Your task to perform on an android device: Clear the cart on bestbuy.com. Add logitech g933 to the cart on bestbuy.com, then select checkout. Image 0: 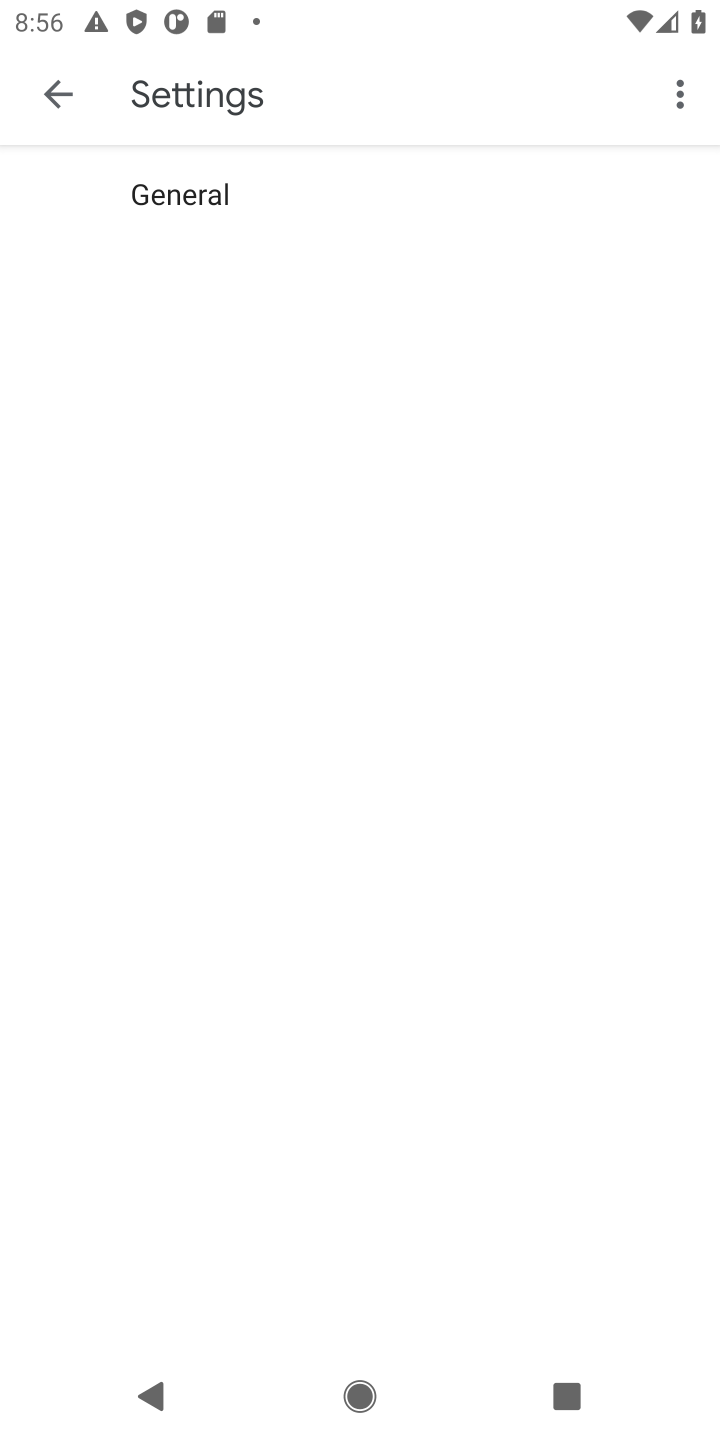
Step 0: press home button
Your task to perform on an android device: Clear the cart on bestbuy.com. Add logitech g933 to the cart on bestbuy.com, then select checkout. Image 1: 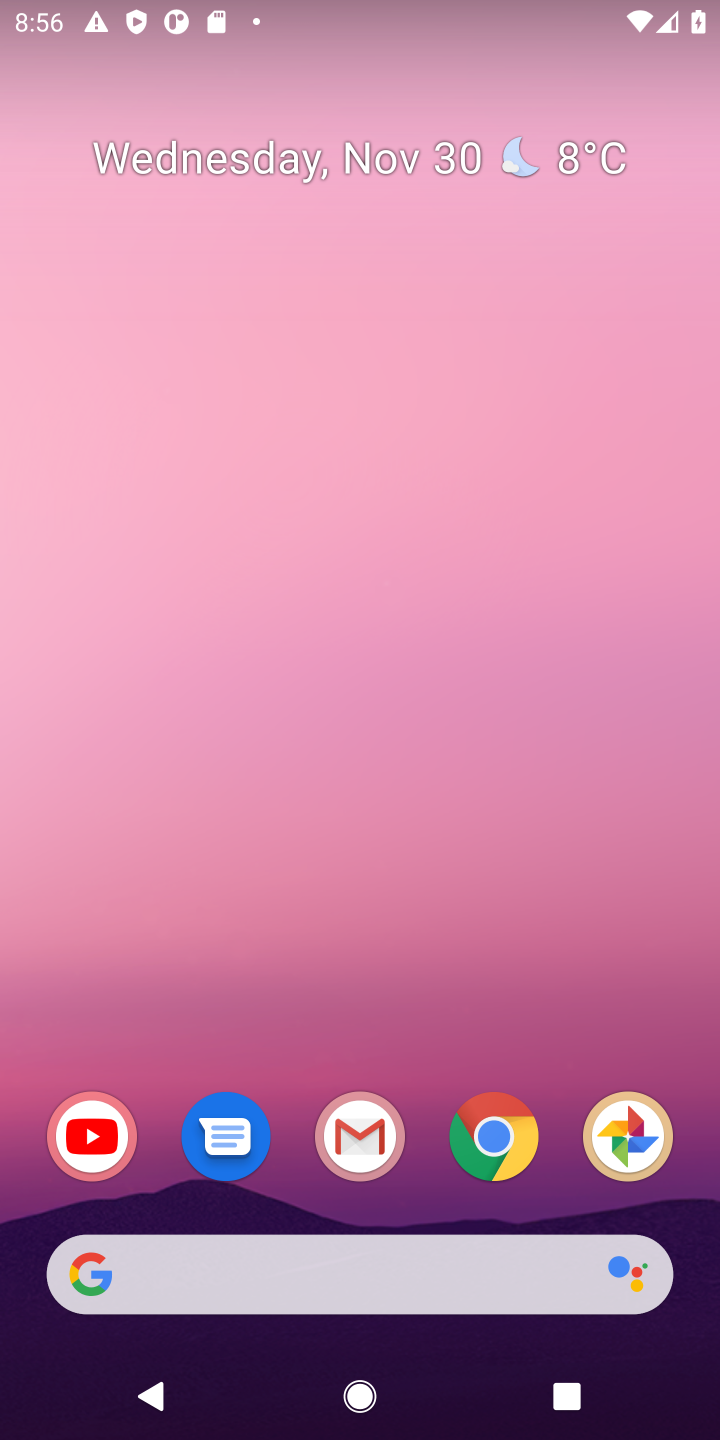
Step 1: click (493, 1139)
Your task to perform on an android device: Clear the cart on bestbuy.com. Add logitech g933 to the cart on bestbuy.com, then select checkout. Image 2: 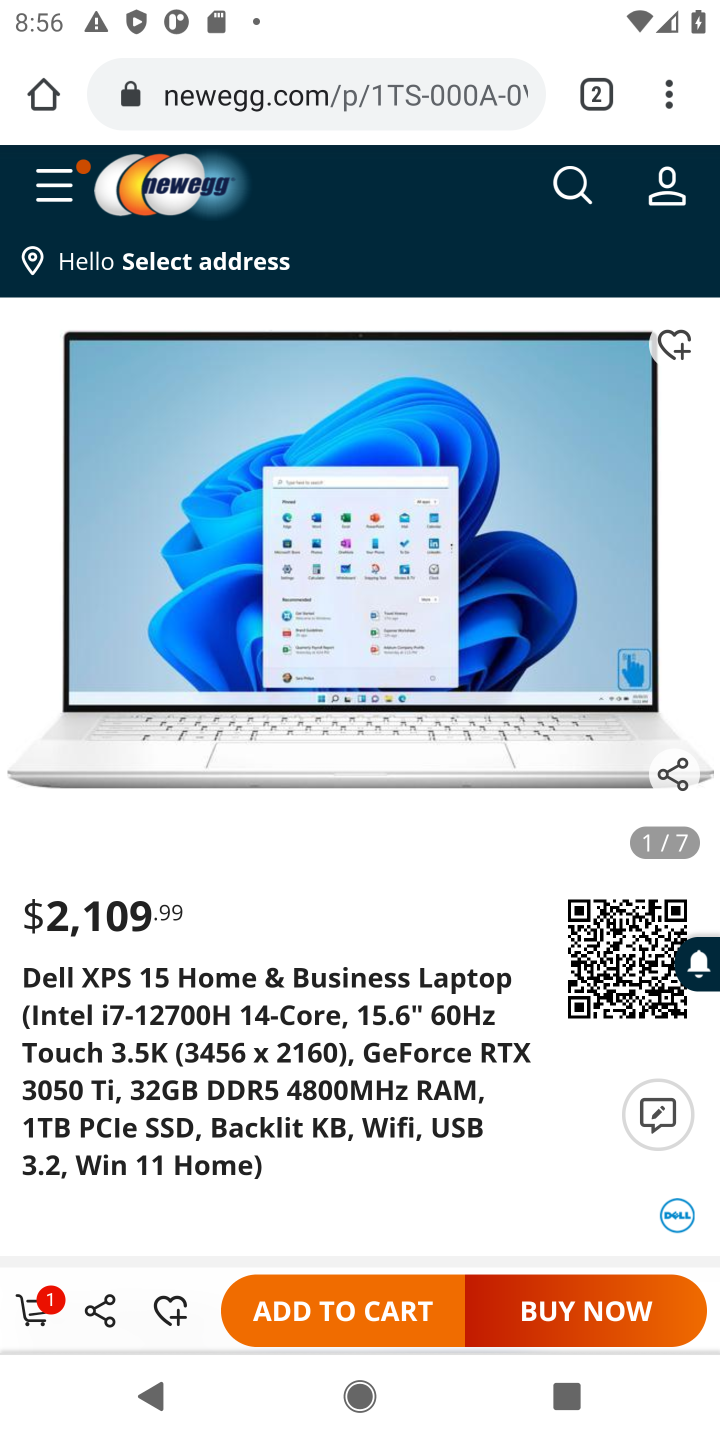
Step 2: click (314, 105)
Your task to perform on an android device: Clear the cart on bestbuy.com. Add logitech g933 to the cart on bestbuy.com, then select checkout. Image 3: 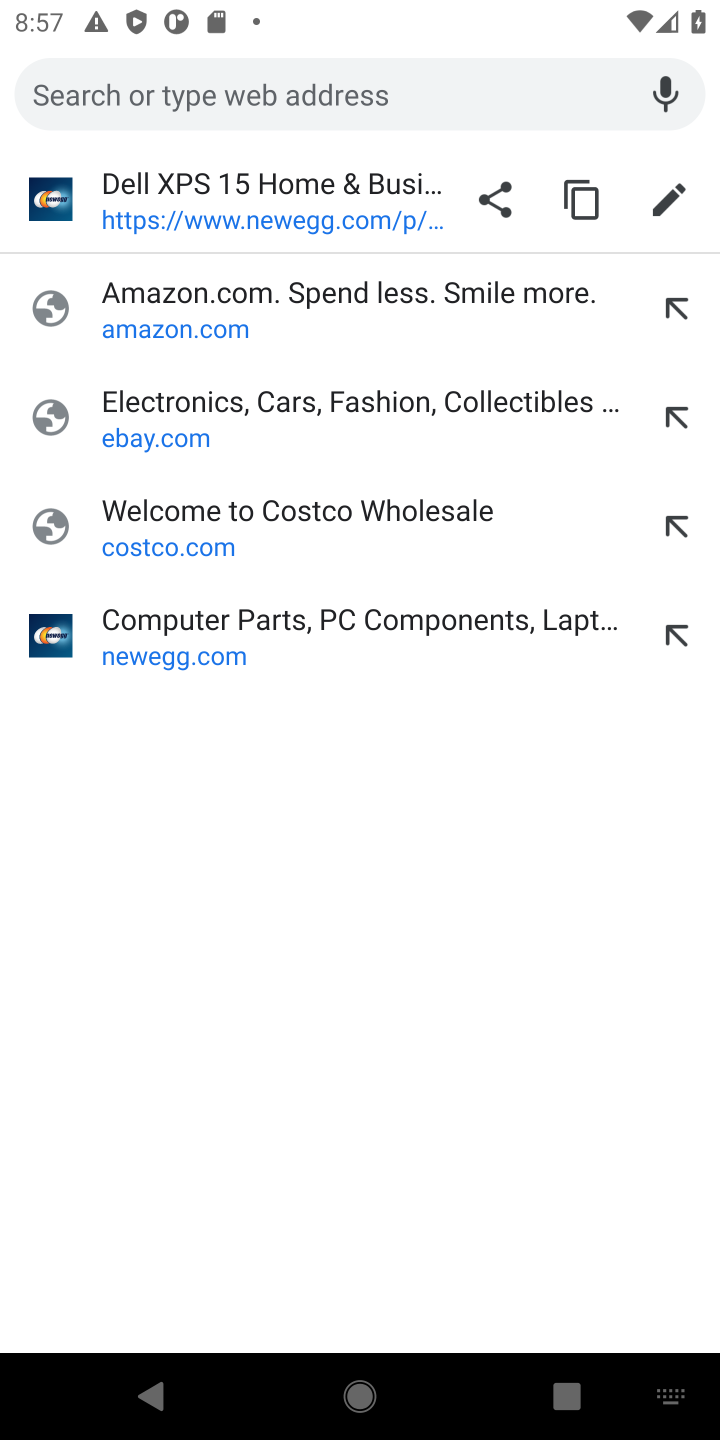
Step 3: type "bestbuy.com"
Your task to perform on an android device: Clear the cart on bestbuy.com. Add logitech g933 to the cart on bestbuy.com, then select checkout. Image 4: 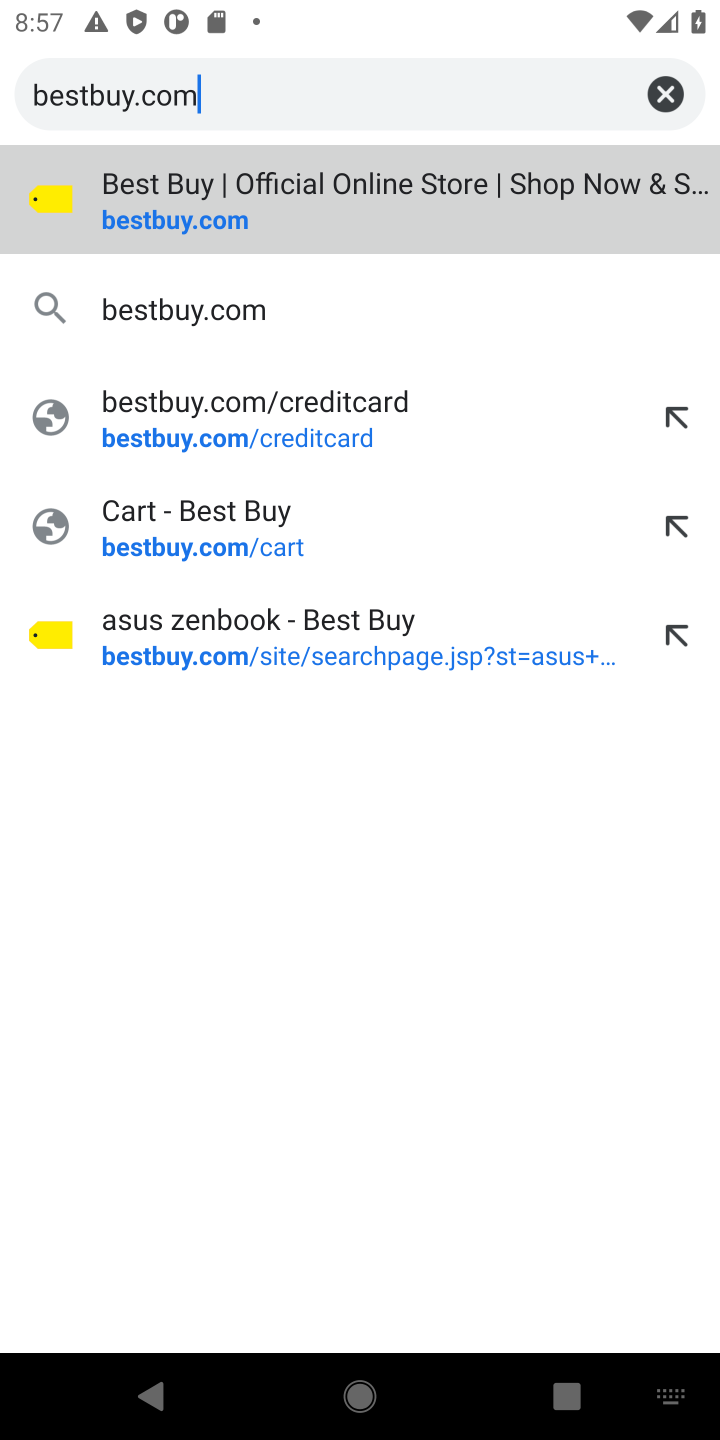
Step 4: click (130, 224)
Your task to perform on an android device: Clear the cart on bestbuy.com. Add logitech g933 to the cart on bestbuy.com, then select checkout. Image 5: 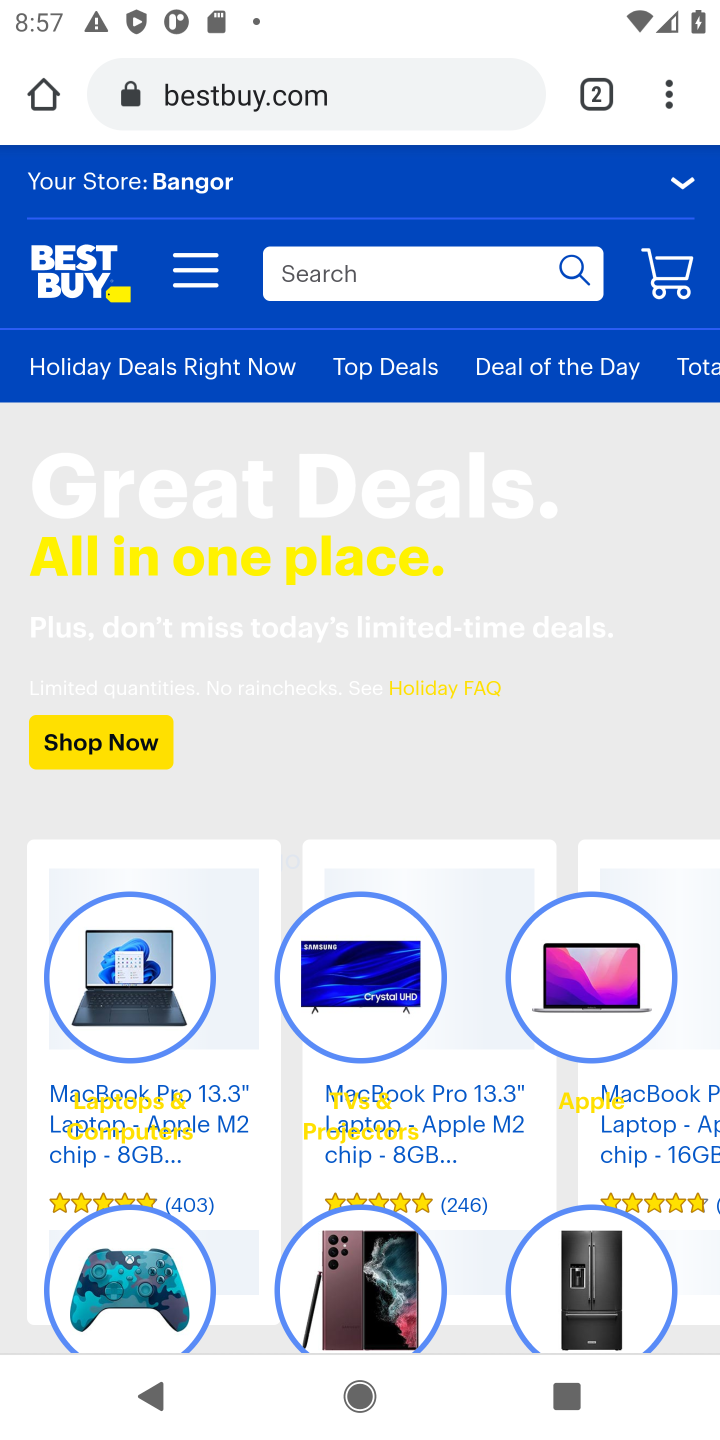
Step 5: click (659, 274)
Your task to perform on an android device: Clear the cart on bestbuy.com. Add logitech g933 to the cart on bestbuy.com, then select checkout. Image 6: 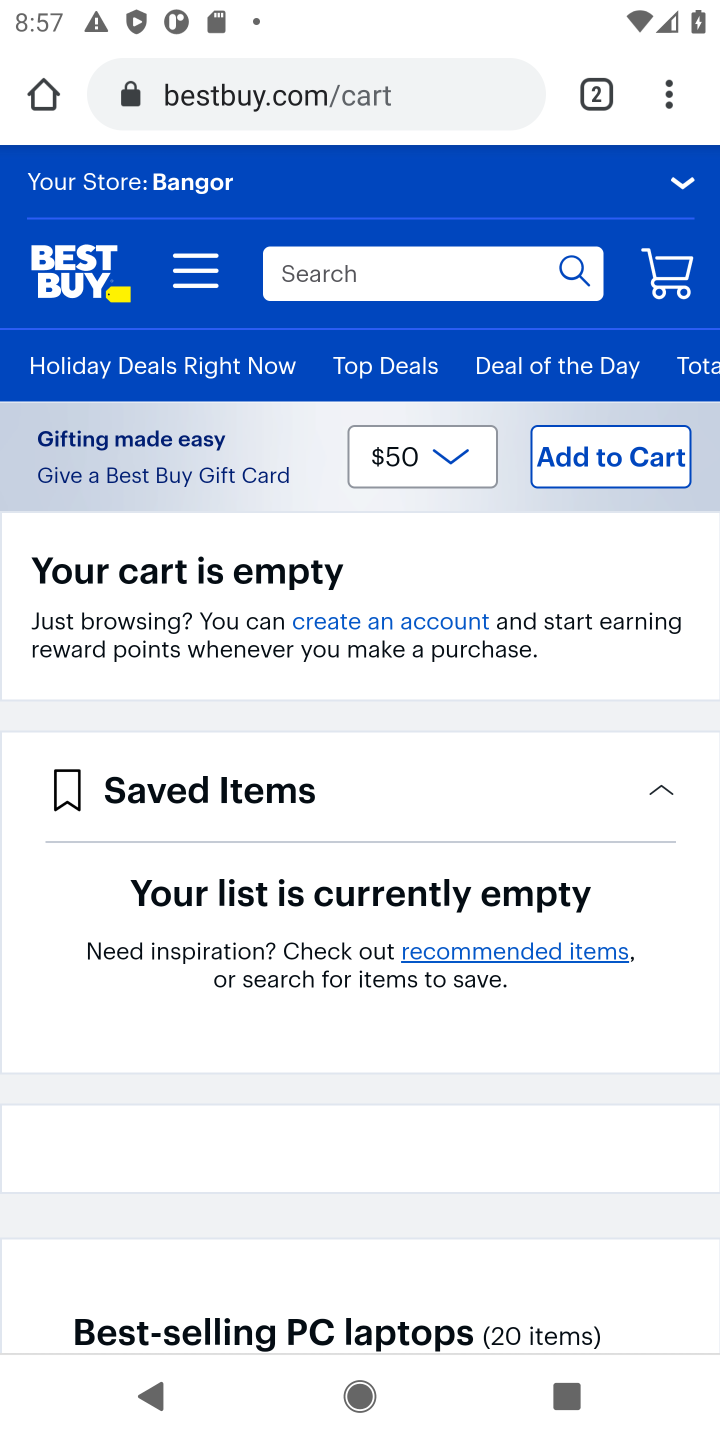
Step 6: click (356, 279)
Your task to perform on an android device: Clear the cart on bestbuy.com. Add logitech g933 to the cart on bestbuy.com, then select checkout. Image 7: 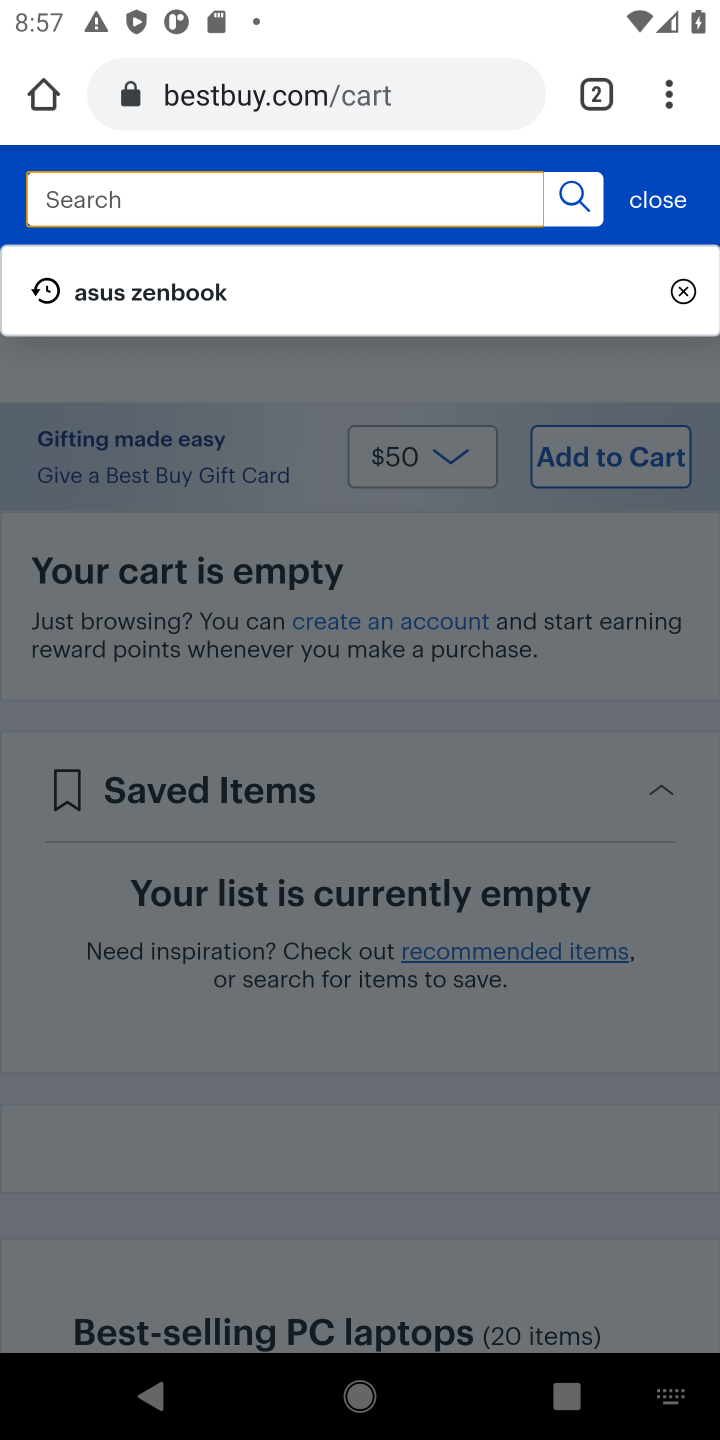
Step 7: type "logitech g933 "
Your task to perform on an android device: Clear the cart on bestbuy.com. Add logitech g933 to the cart on bestbuy.com, then select checkout. Image 8: 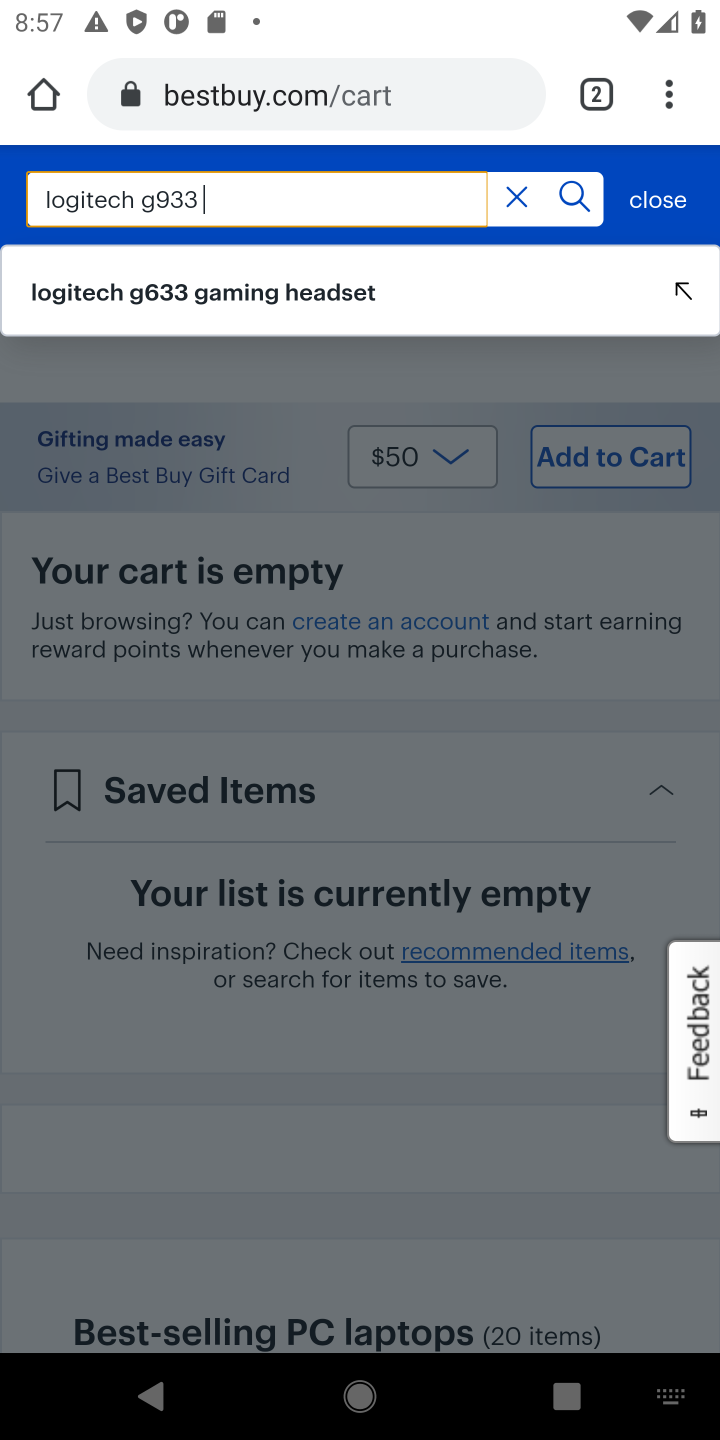
Step 8: click (573, 187)
Your task to perform on an android device: Clear the cart on bestbuy.com. Add logitech g933 to the cart on bestbuy.com, then select checkout. Image 9: 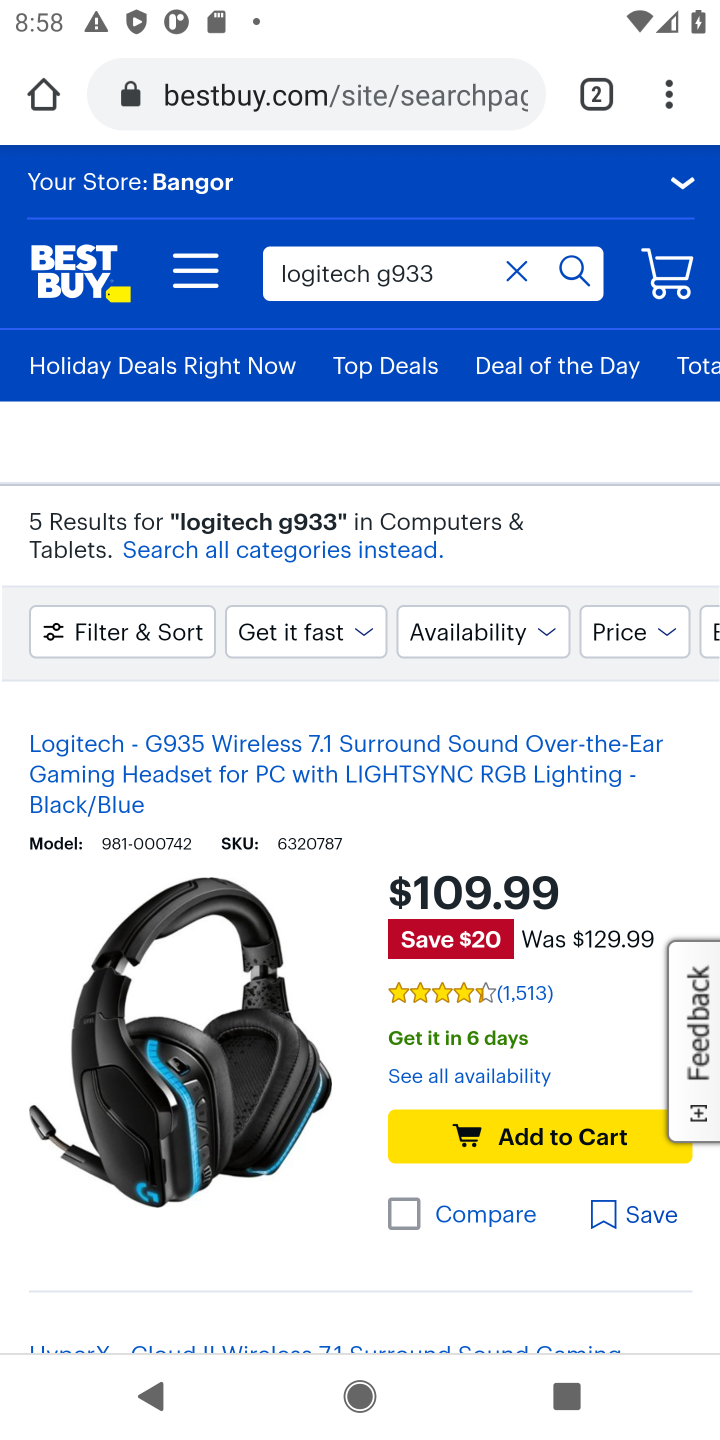
Step 9: task complete